Your task to perform on an android device: move an email to a new category in the gmail app Image 0: 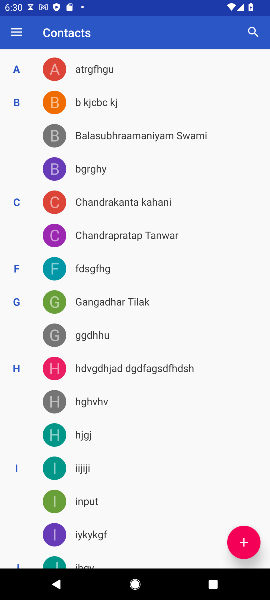
Step 0: press home button
Your task to perform on an android device: move an email to a new category in the gmail app Image 1: 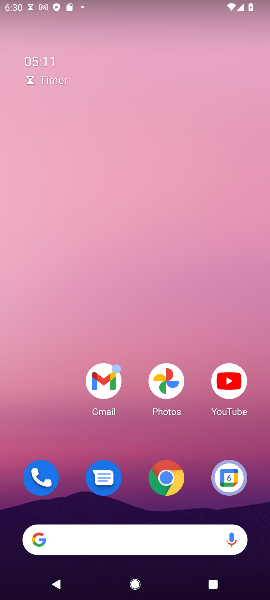
Step 1: click (107, 387)
Your task to perform on an android device: move an email to a new category in the gmail app Image 2: 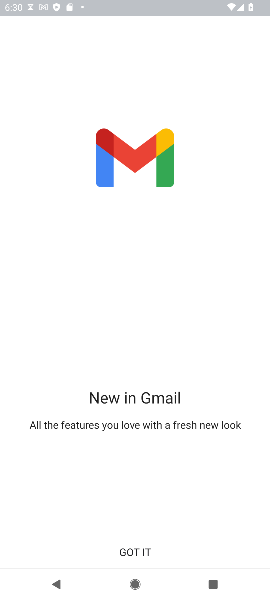
Step 2: click (143, 548)
Your task to perform on an android device: move an email to a new category in the gmail app Image 3: 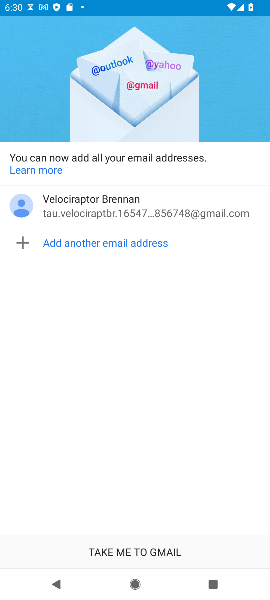
Step 3: click (143, 548)
Your task to perform on an android device: move an email to a new category in the gmail app Image 4: 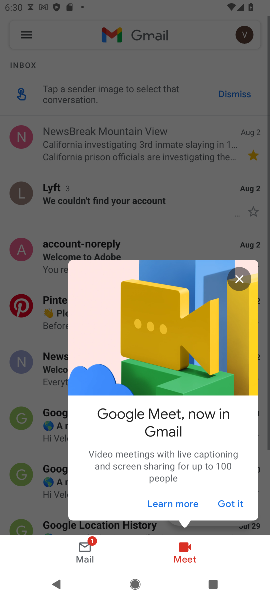
Step 4: click (247, 277)
Your task to perform on an android device: move an email to a new category in the gmail app Image 5: 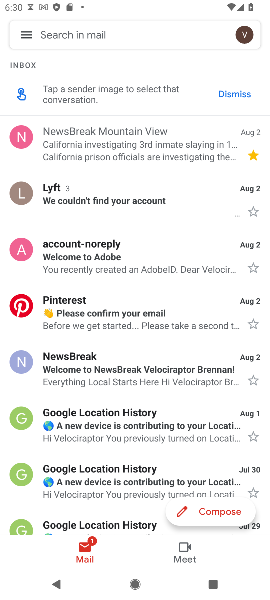
Step 5: click (29, 191)
Your task to perform on an android device: move an email to a new category in the gmail app Image 6: 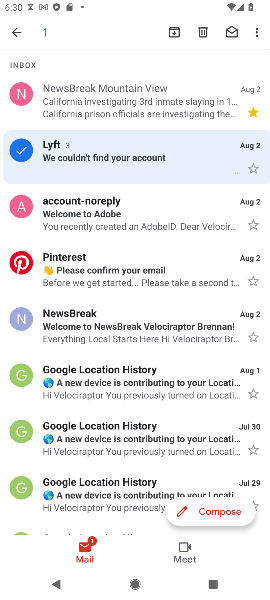
Step 6: click (256, 31)
Your task to perform on an android device: move an email to a new category in the gmail app Image 7: 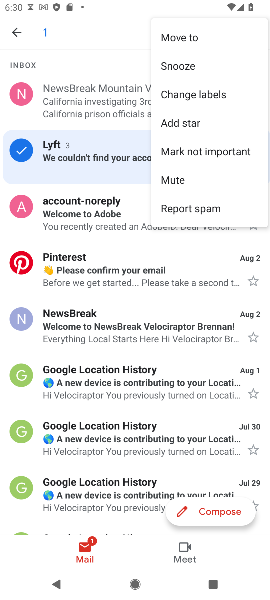
Step 7: click (200, 103)
Your task to perform on an android device: move an email to a new category in the gmail app Image 8: 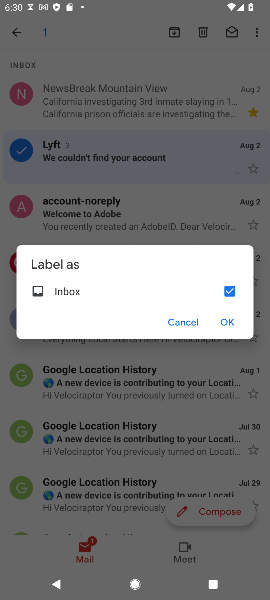
Step 8: click (230, 293)
Your task to perform on an android device: move an email to a new category in the gmail app Image 9: 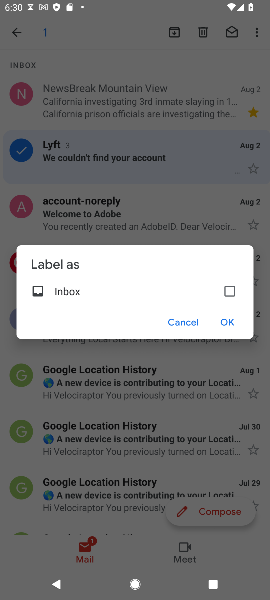
Step 9: click (230, 319)
Your task to perform on an android device: move an email to a new category in the gmail app Image 10: 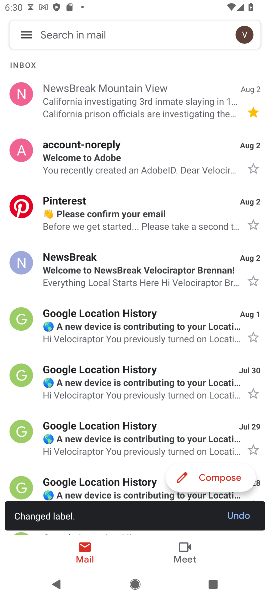
Step 10: task complete